Your task to perform on an android device: Open the web browser Image 0: 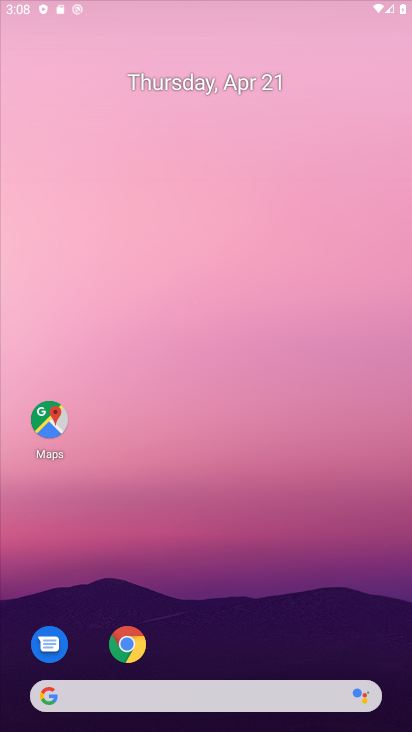
Step 0: drag from (268, 646) to (403, 305)
Your task to perform on an android device: Open the web browser Image 1: 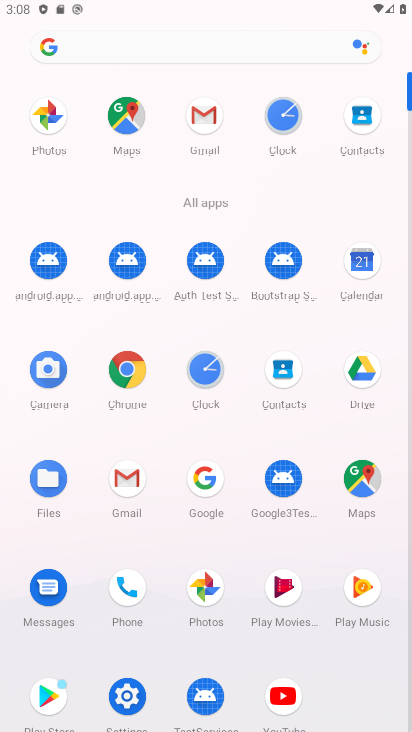
Step 1: drag from (250, 565) to (251, 156)
Your task to perform on an android device: Open the web browser Image 2: 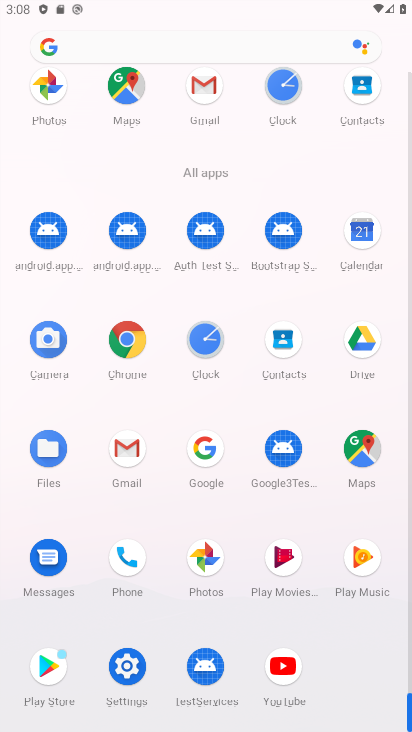
Step 2: click (118, 657)
Your task to perform on an android device: Open the web browser Image 3: 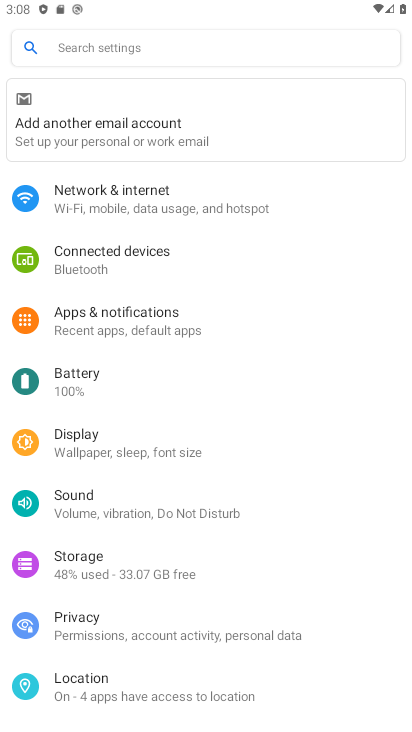
Step 3: press home button
Your task to perform on an android device: Open the web browser Image 4: 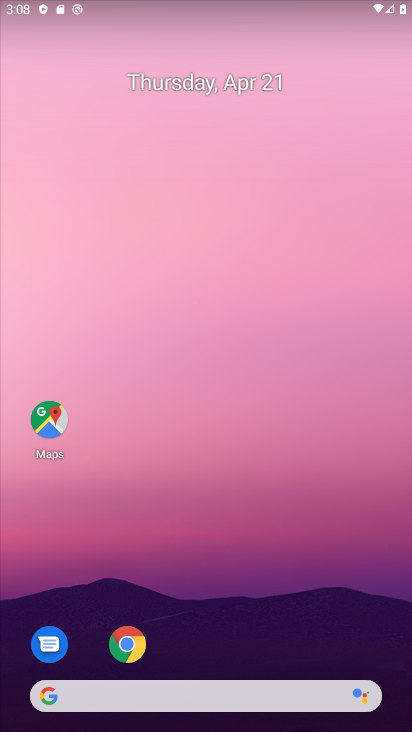
Step 4: click (114, 640)
Your task to perform on an android device: Open the web browser Image 5: 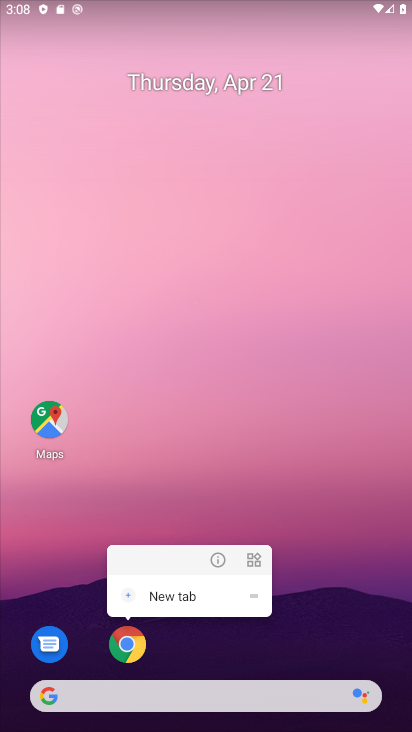
Step 5: click (135, 654)
Your task to perform on an android device: Open the web browser Image 6: 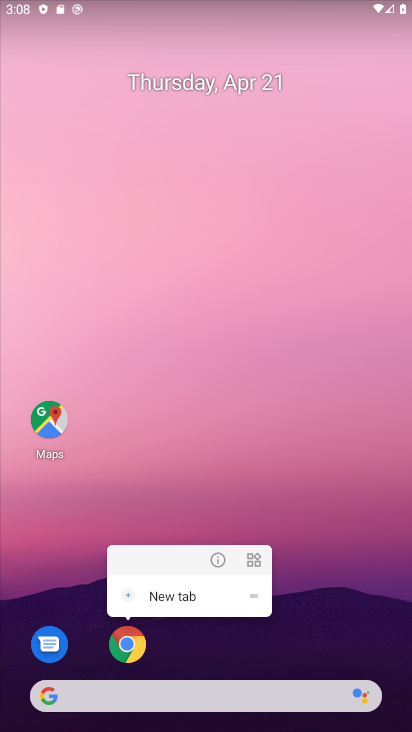
Step 6: click (129, 645)
Your task to perform on an android device: Open the web browser Image 7: 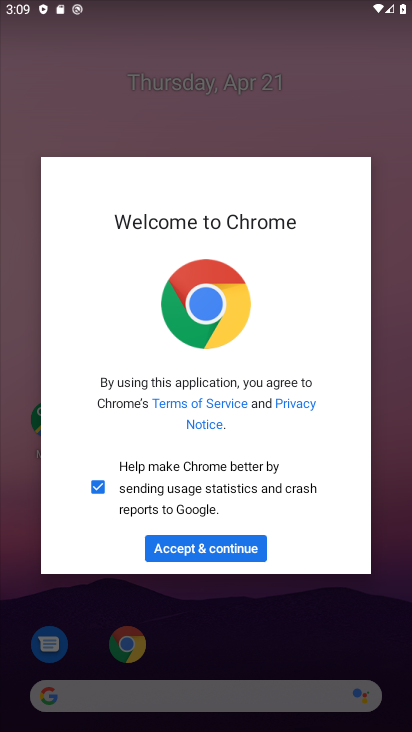
Step 7: click (222, 549)
Your task to perform on an android device: Open the web browser Image 8: 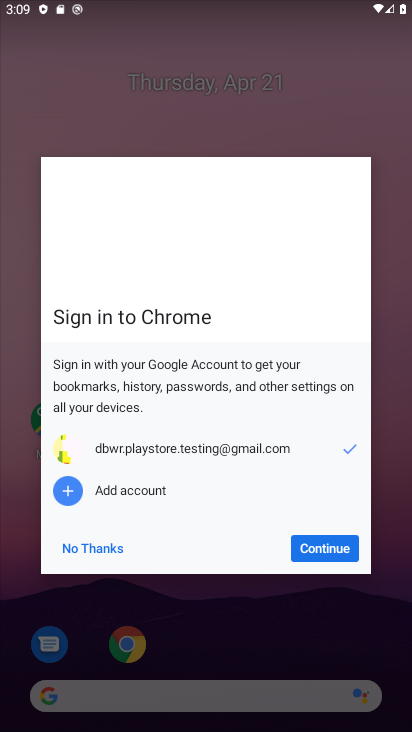
Step 8: click (335, 540)
Your task to perform on an android device: Open the web browser Image 9: 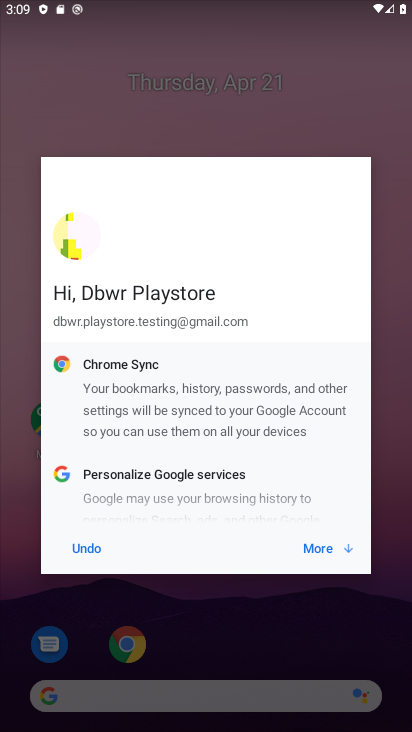
Step 9: click (339, 543)
Your task to perform on an android device: Open the web browser Image 10: 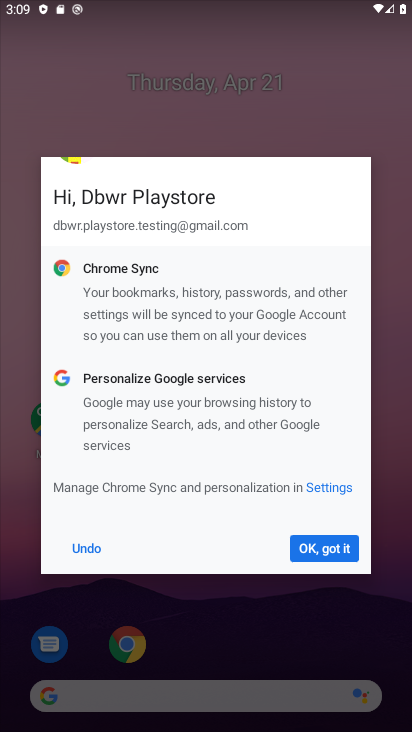
Step 10: click (344, 548)
Your task to perform on an android device: Open the web browser Image 11: 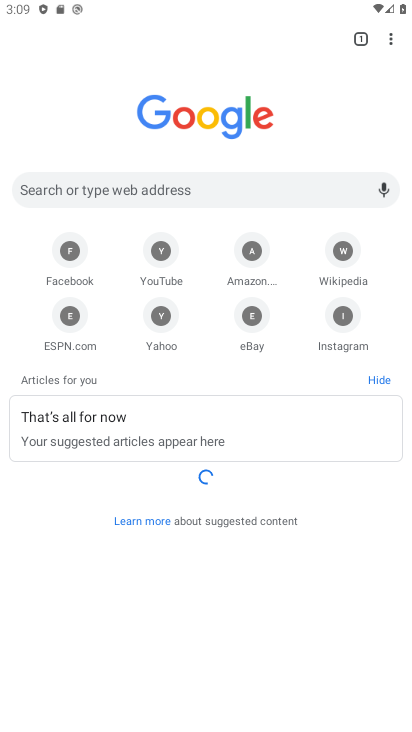
Step 11: task complete